Your task to perform on an android device: turn on the 24-hour format for clock Image 0: 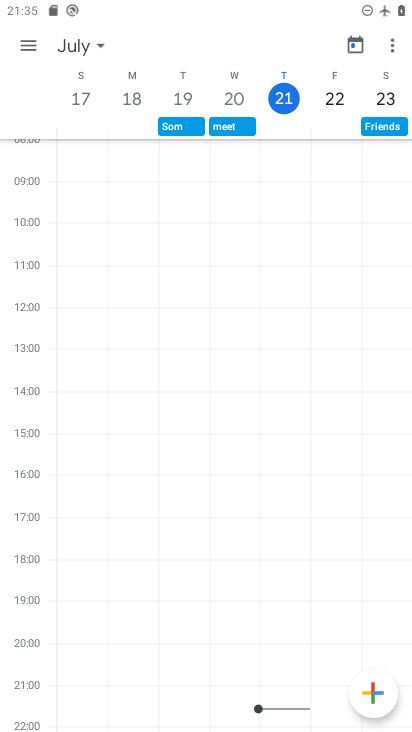
Step 0: press home button
Your task to perform on an android device: turn on the 24-hour format for clock Image 1: 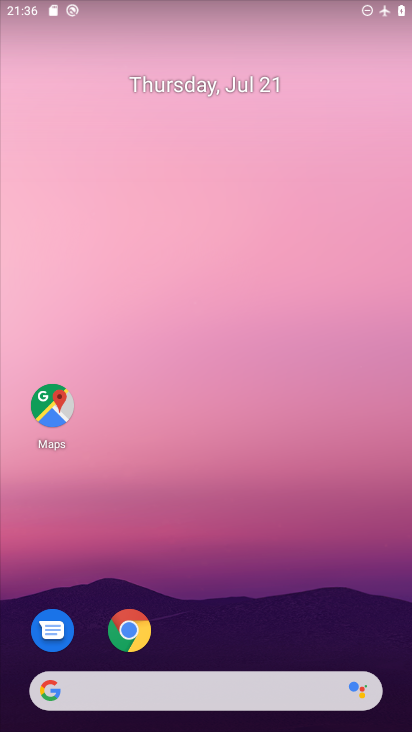
Step 1: drag from (317, 569) to (275, 69)
Your task to perform on an android device: turn on the 24-hour format for clock Image 2: 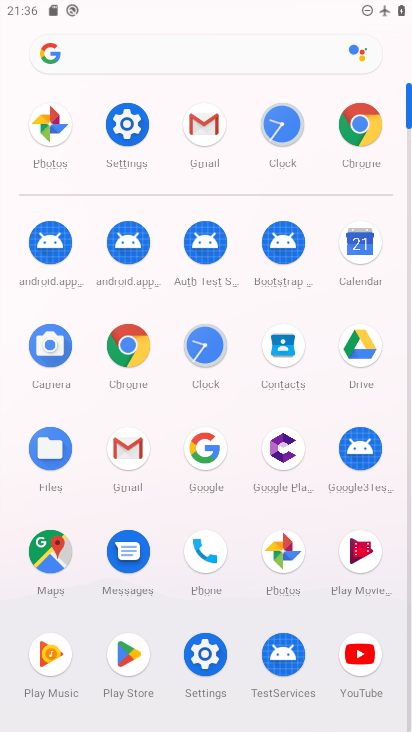
Step 2: click (200, 350)
Your task to perform on an android device: turn on the 24-hour format for clock Image 3: 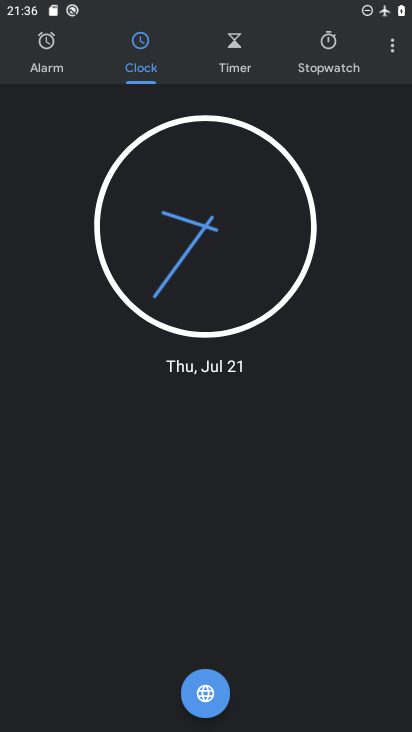
Step 3: click (387, 48)
Your task to perform on an android device: turn on the 24-hour format for clock Image 4: 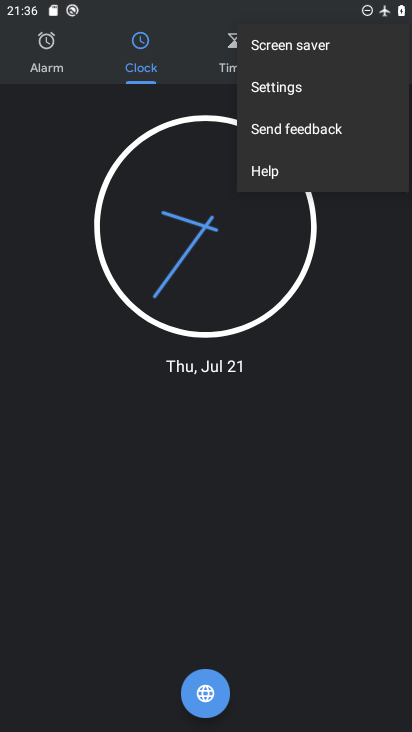
Step 4: click (305, 101)
Your task to perform on an android device: turn on the 24-hour format for clock Image 5: 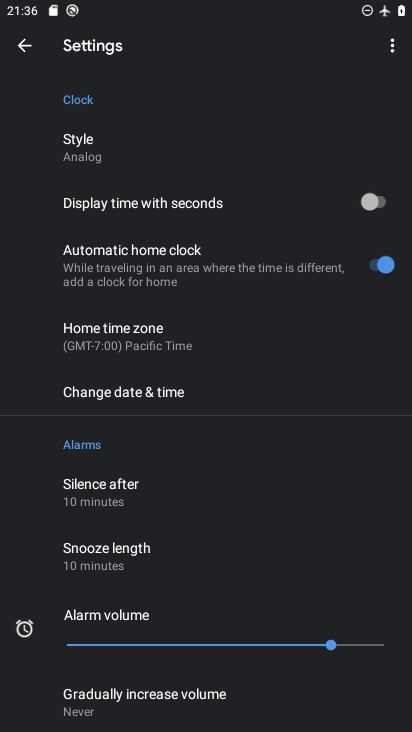
Step 5: drag from (196, 609) to (212, 403)
Your task to perform on an android device: turn on the 24-hour format for clock Image 6: 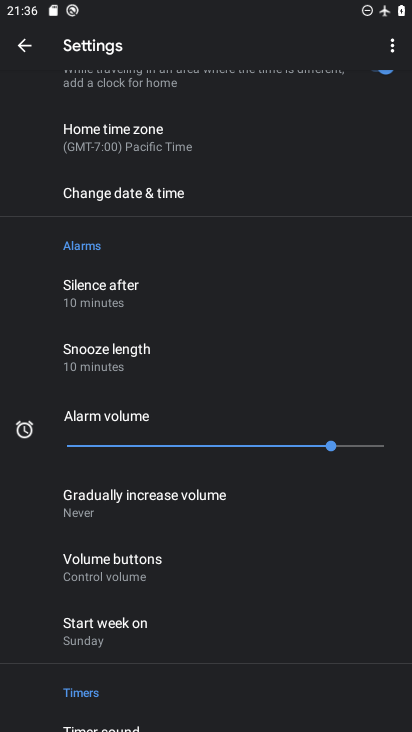
Step 6: click (185, 193)
Your task to perform on an android device: turn on the 24-hour format for clock Image 7: 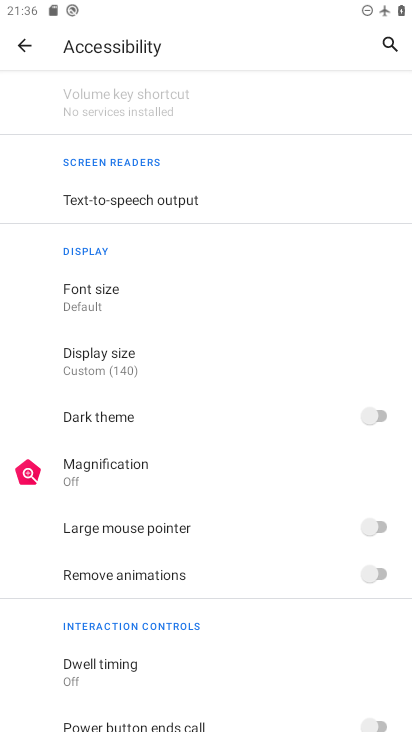
Step 7: drag from (157, 618) to (175, 355)
Your task to perform on an android device: turn on the 24-hour format for clock Image 8: 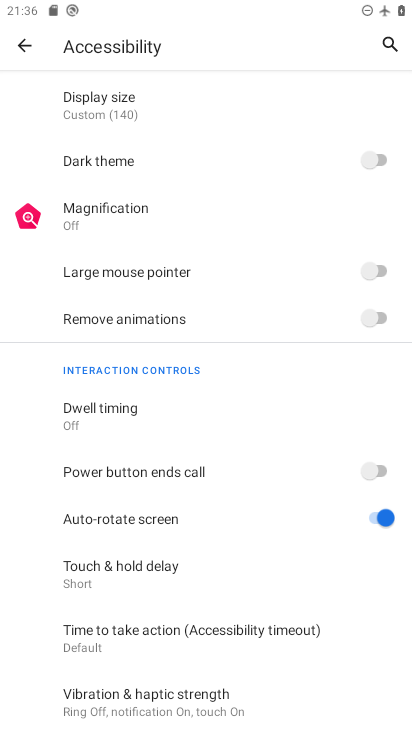
Step 8: drag from (201, 636) to (294, 267)
Your task to perform on an android device: turn on the 24-hour format for clock Image 9: 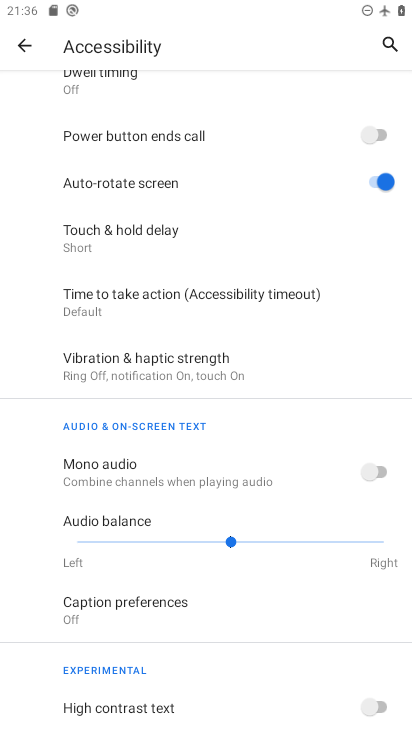
Step 9: drag from (279, 628) to (345, 251)
Your task to perform on an android device: turn on the 24-hour format for clock Image 10: 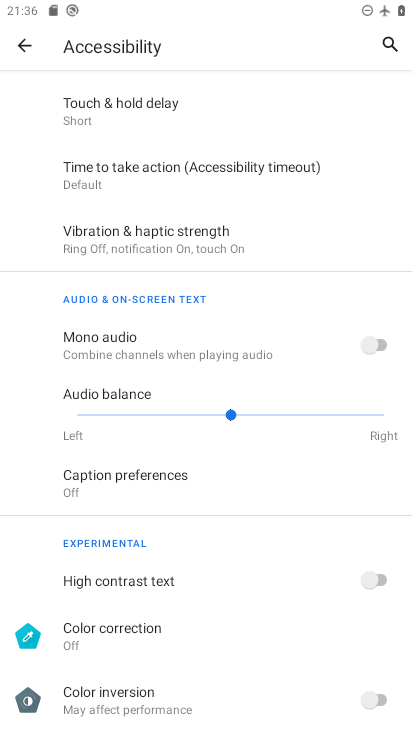
Step 10: drag from (261, 271) to (223, 673)
Your task to perform on an android device: turn on the 24-hour format for clock Image 11: 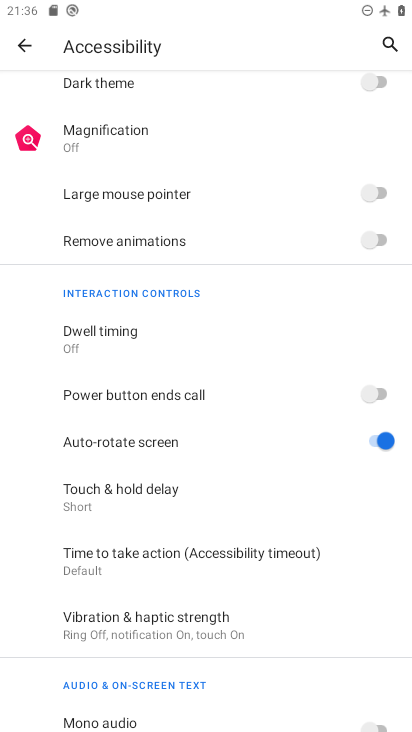
Step 11: drag from (163, 152) to (162, 533)
Your task to perform on an android device: turn on the 24-hour format for clock Image 12: 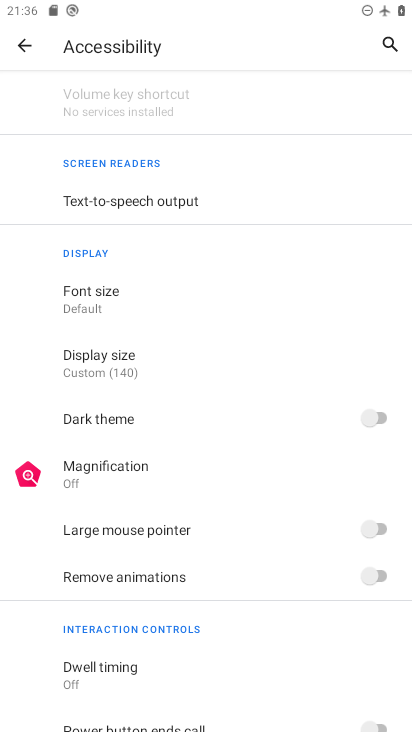
Step 12: drag from (248, 119) to (212, 448)
Your task to perform on an android device: turn on the 24-hour format for clock Image 13: 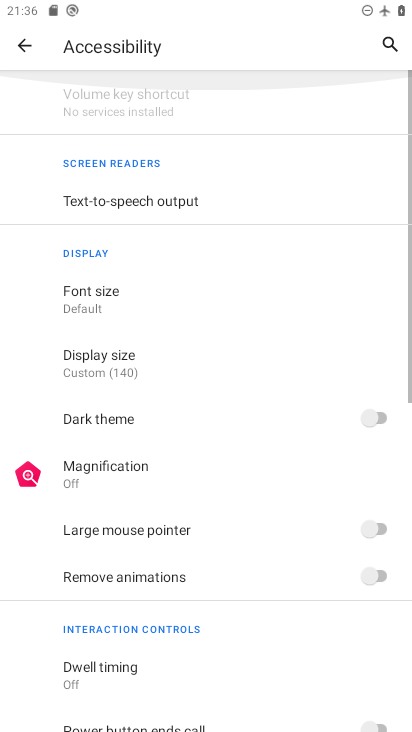
Step 13: drag from (200, 593) to (257, 241)
Your task to perform on an android device: turn on the 24-hour format for clock Image 14: 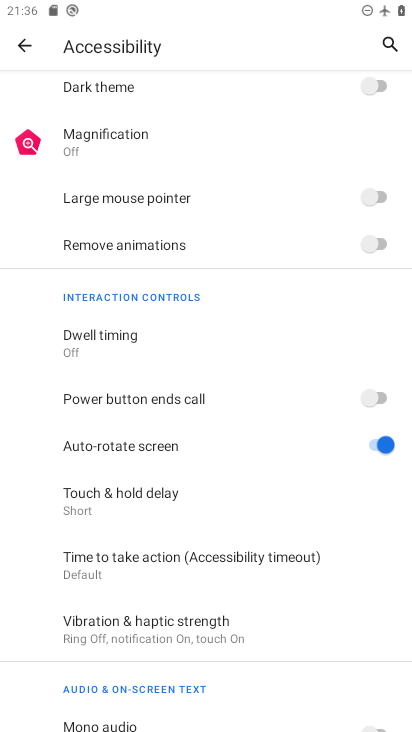
Step 14: click (28, 40)
Your task to perform on an android device: turn on the 24-hour format for clock Image 15: 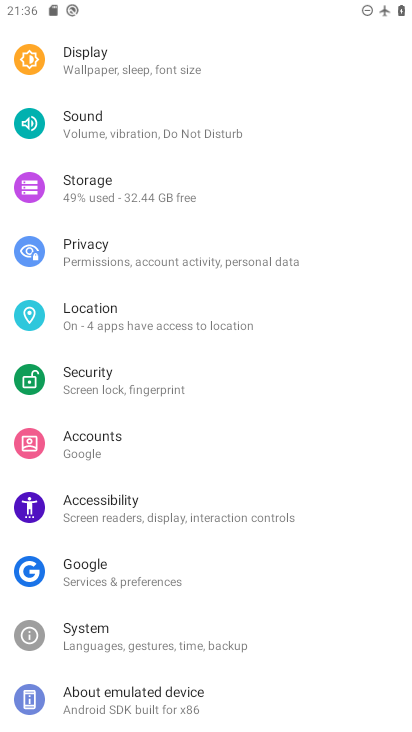
Step 15: task complete